Your task to perform on an android device: turn on javascript in the chrome app Image 0: 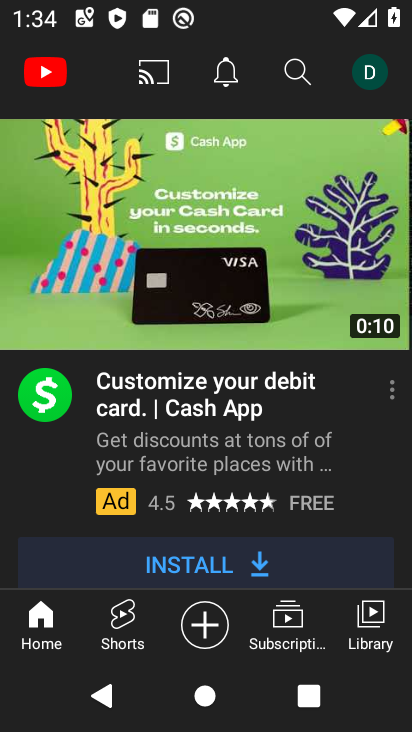
Step 0: press home button
Your task to perform on an android device: turn on javascript in the chrome app Image 1: 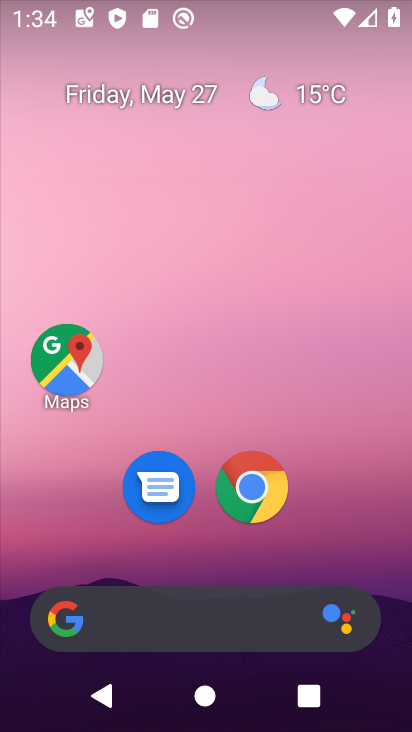
Step 1: click (255, 474)
Your task to perform on an android device: turn on javascript in the chrome app Image 2: 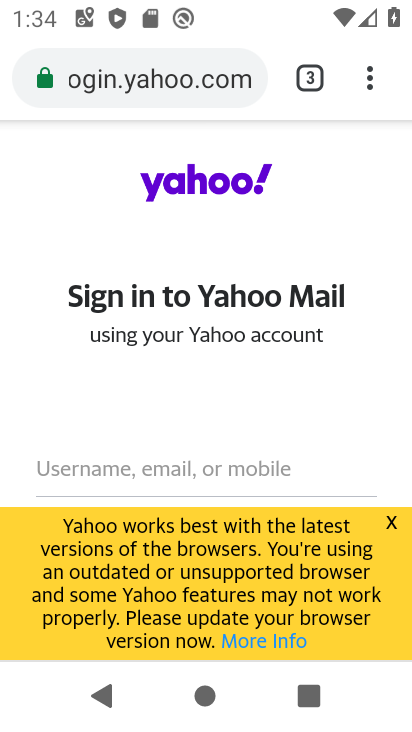
Step 2: click (394, 86)
Your task to perform on an android device: turn on javascript in the chrome app Image 3: 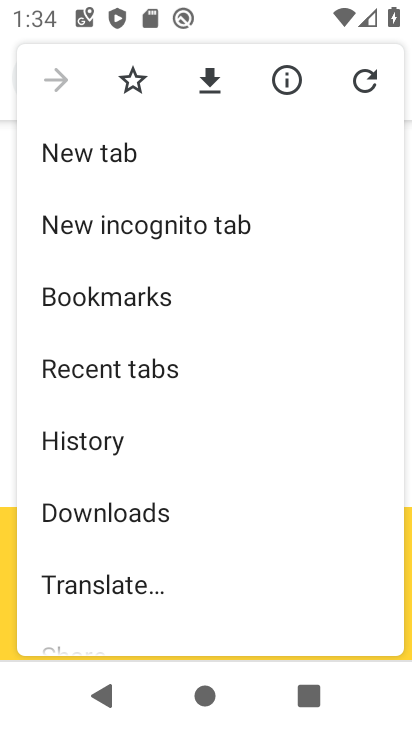
Step 3: drag from (77, 628) to (173, 170)
Your task to perform on an android device: turn on javascript in the chrome app Image 4: 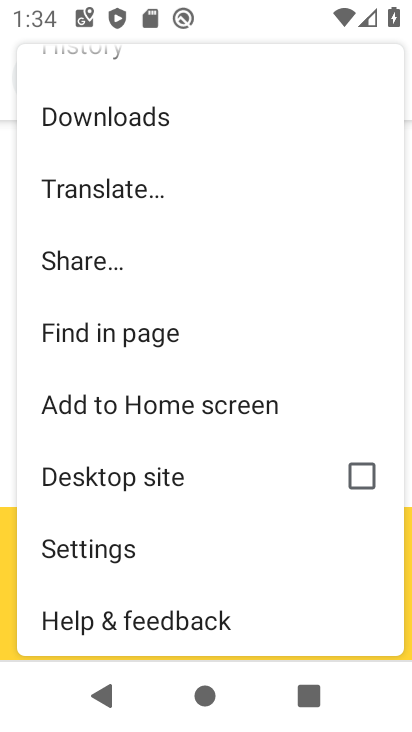
Step 4: click (110, 553)
Your task to perform on an android device: turn on javascript in the chrome app Image 5: 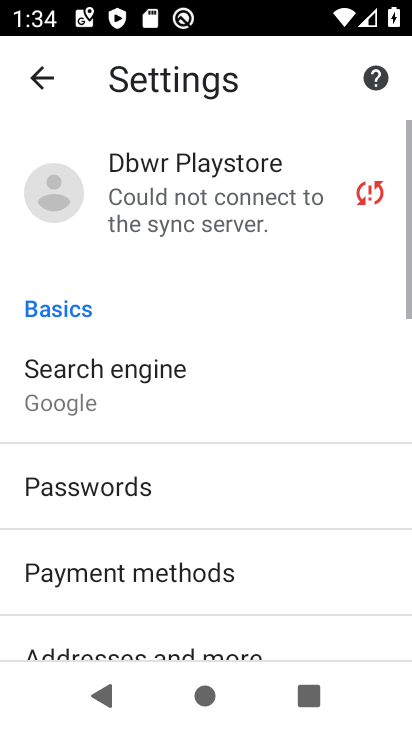
Step 5: drag from (110, 553) to (142, 261)
Your task to perform on an android device: turn on javascript in the chrome app Image 6: 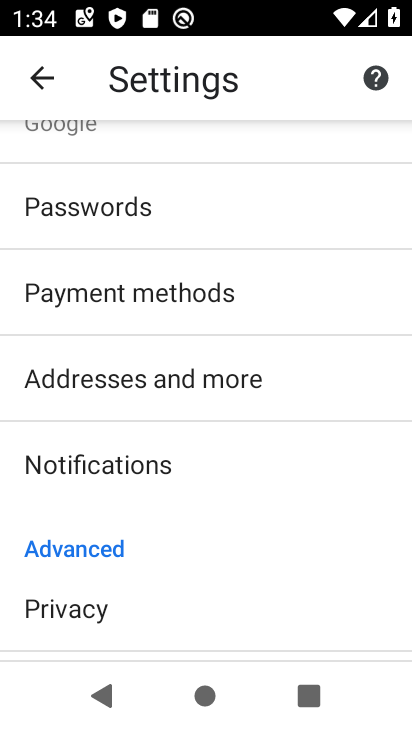
Step 6: drag from (73, 637) to (146, 353)
Your task to perform on an android device: turn on javascript in the chrome app Image 7: 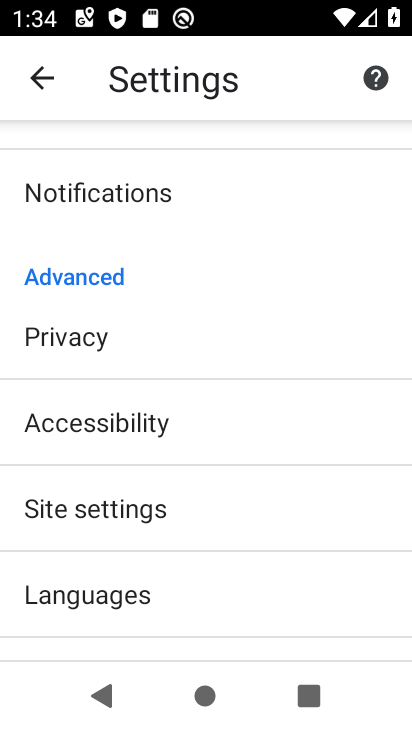
Step 7: drag from (166, 605) to (243, 299)
Your task to perform on an android device: turn on javascript in the chrome app Image 8: 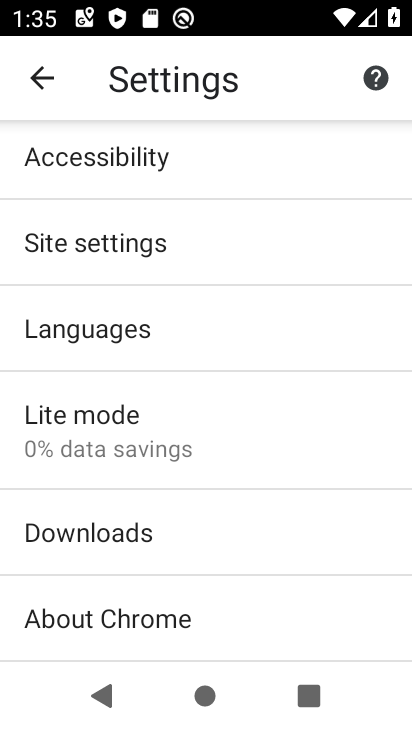
Step 8: click (151, 259)
Your task to perform on an android device: turn on javascript in the chrome app Image 9: 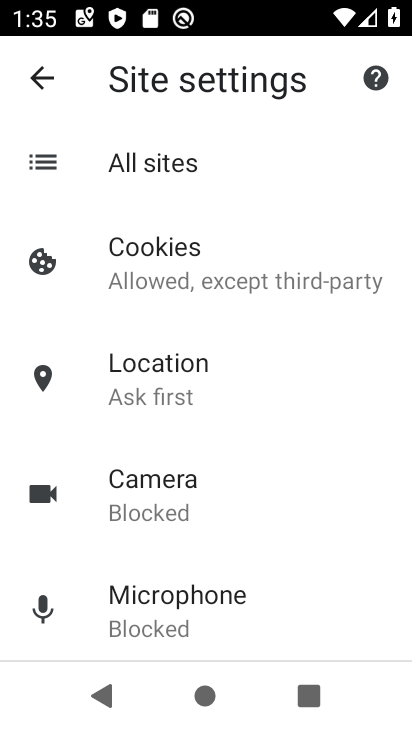
Step 9: drag from (142, 548) to (223, 218)
Your task to perform on an android device: turn on javascript in the chrome app Image 10: 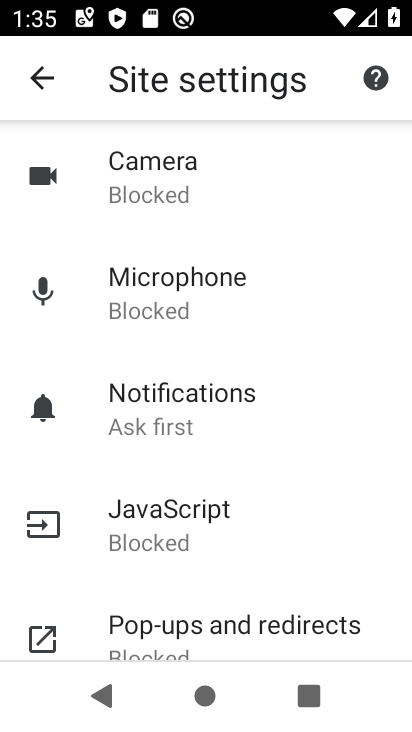
Step 10: click (128, 521)
Your task to perform on an android device: turn on javascript in the chrome app Image 11: 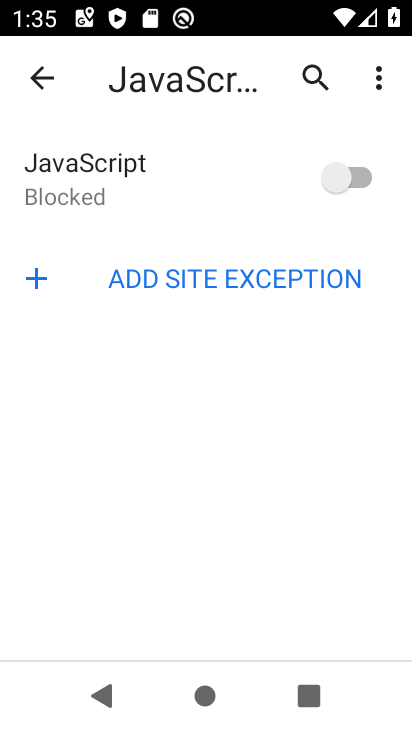
Step 11: click (362, 182)
Your task to perform on an android device: turn on javascript in the chrome app Image 12: 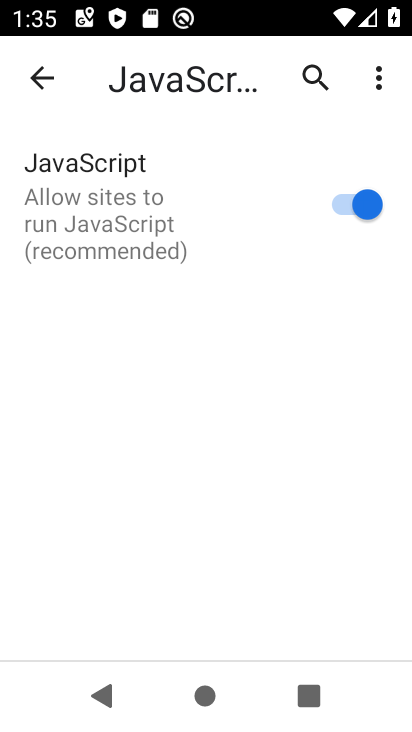
Step 12: task complete